Your task to perform on an android device: Open internet settings Image 0: 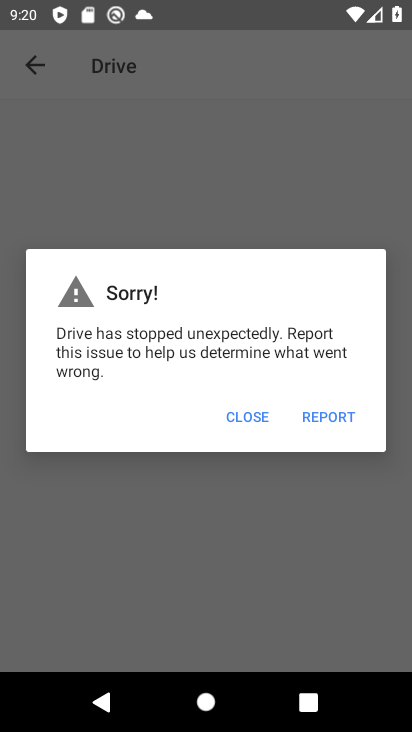
Step 0: click (223, 593)
Your task to perform on an android device: Open internet settings Image 1: 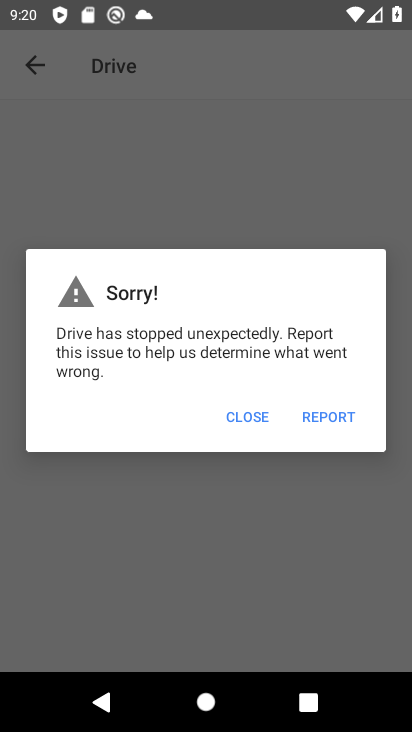
Step 1: press home button
Your task to perform on an android device: Open internet settings Image 2: 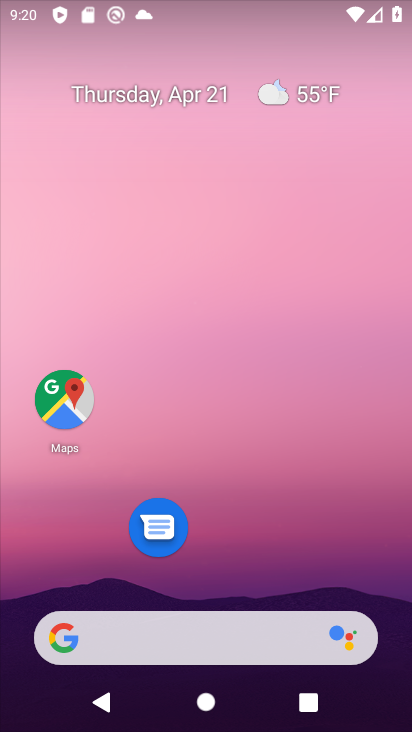
Step 2: drag from (188, 581) to (233, 20)
Your task to perform on an android device: Open internet settings Image 3: 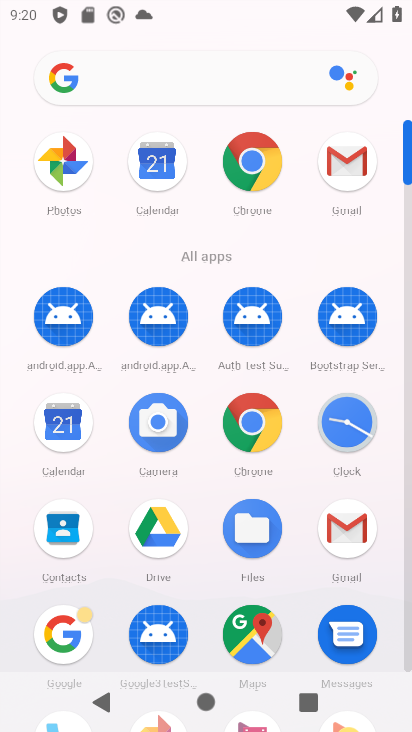
Step 3: drag from (118, 572) to (127, 188)
Your task to perform on an android device: Open internet settings Image 4: 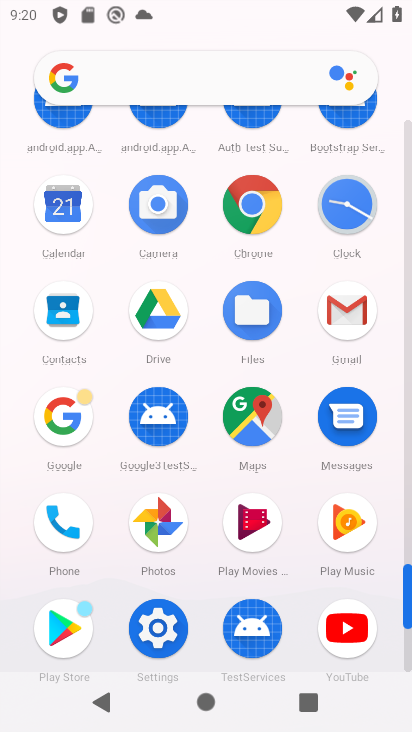
Step 4: click (167, 613)
Your task to perform on an android device: Open internet settings Image 5: 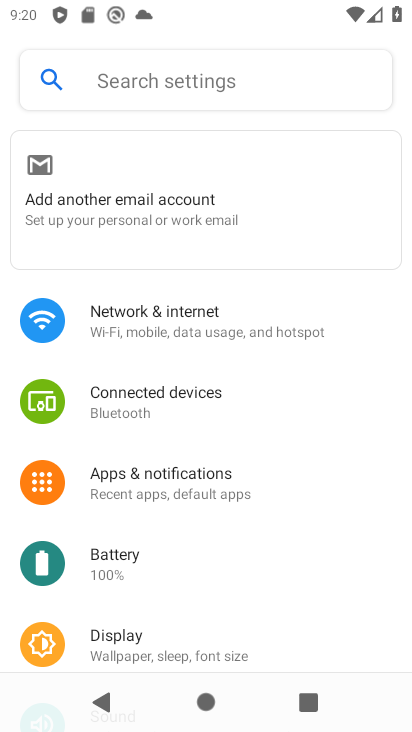
Step 5: click (180, 301)
Your task to perform on an android device: Open internet settings Image 6: 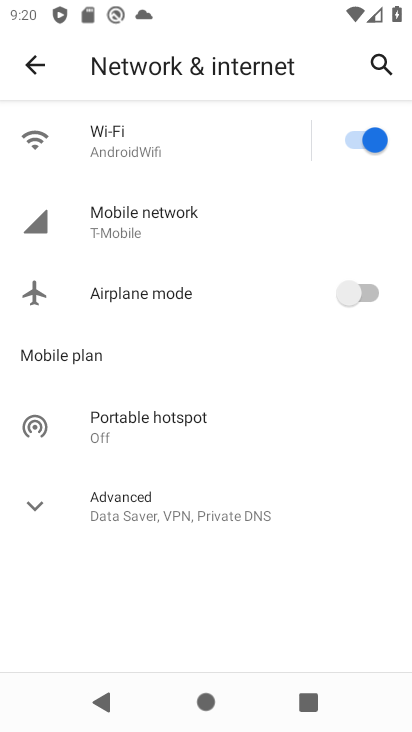
Step 6: task complete